Your task to perform on an android device: Search for a custom-made wallet on Etsy Image 0: 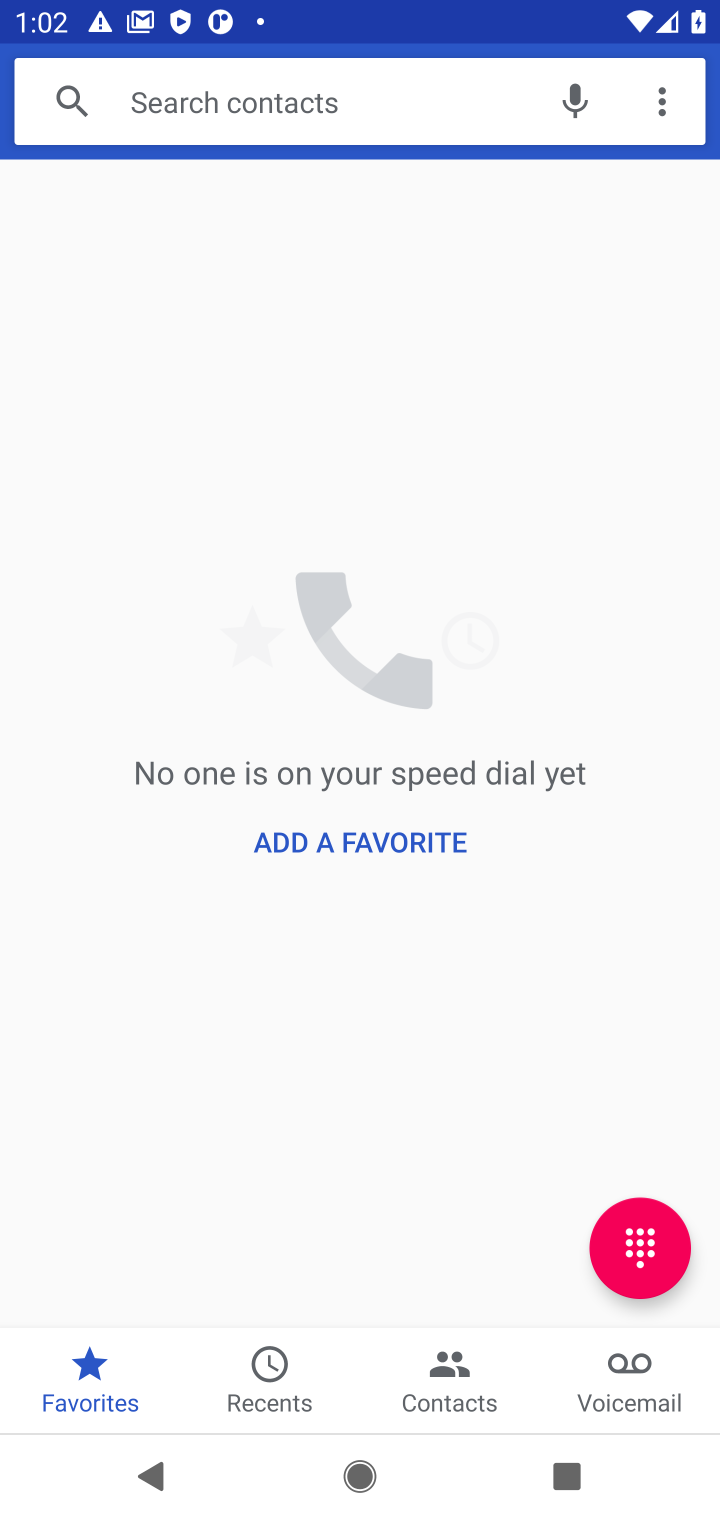
Step 0: press home button
Your task to perform on an android device: Search for a custom-made wallet on Etsy Image 1: 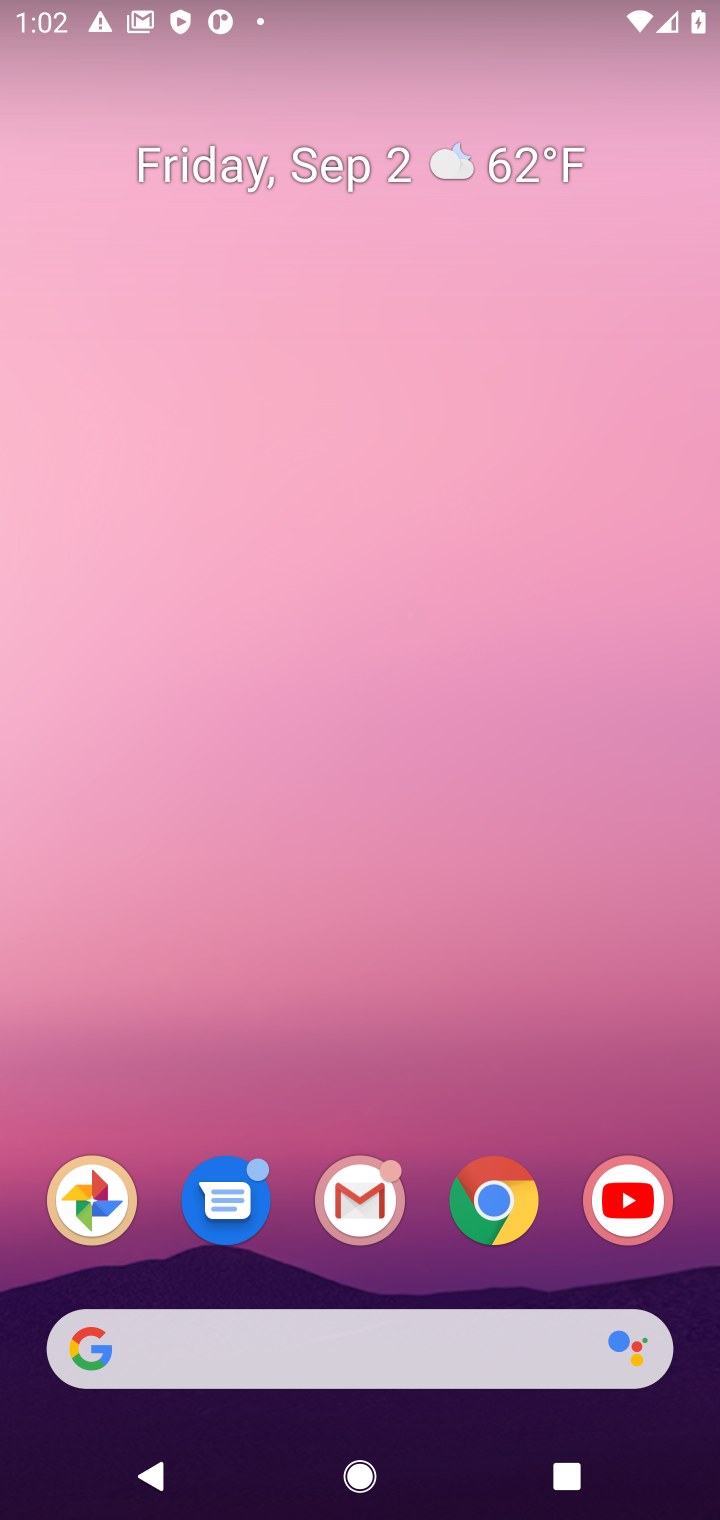
Step 1: click (494, 1210)
Your task to perform on an android device: Search for a custom-made wallet on Etsy Image 2: 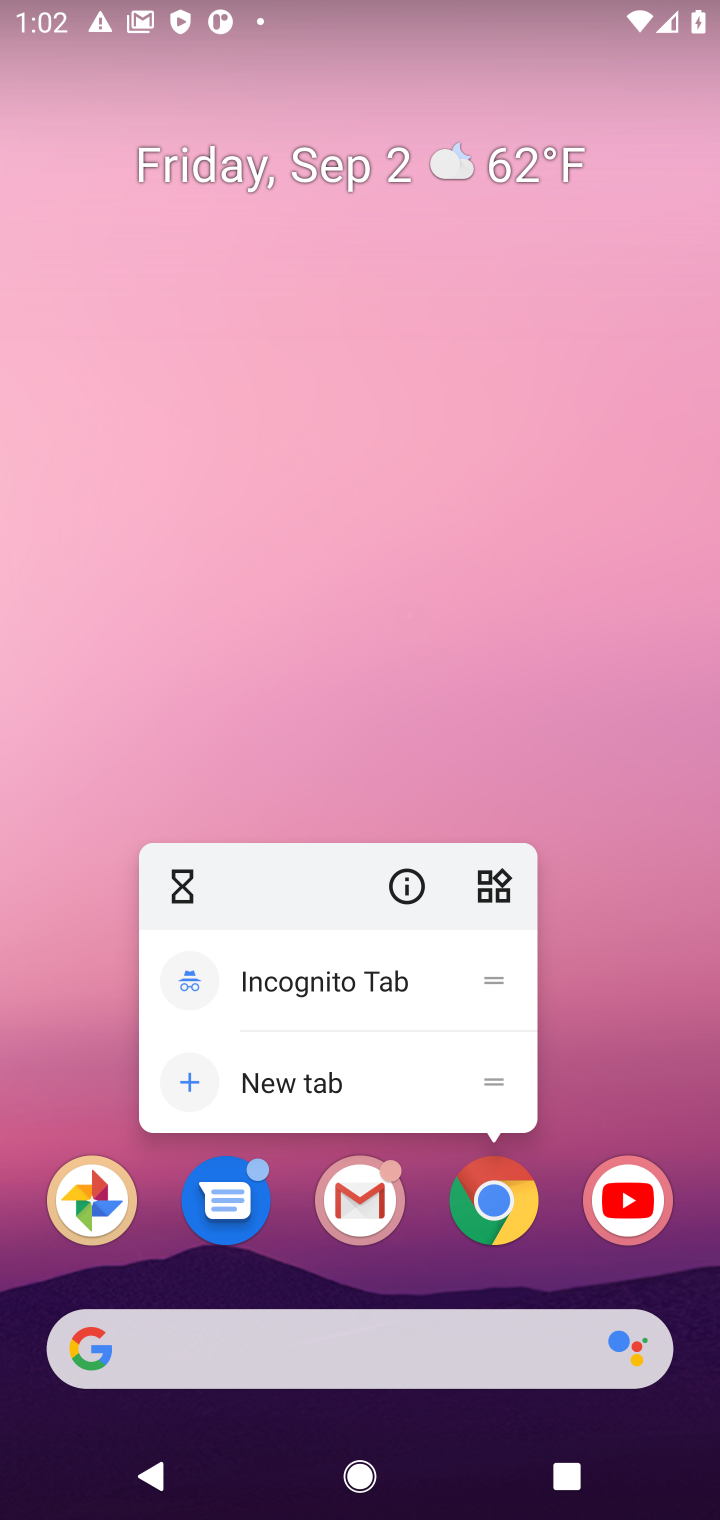
Step 2: click (492, 1189)
Your task to perform on an android device: Search for a custom-made wallet on Etsy Image 3: 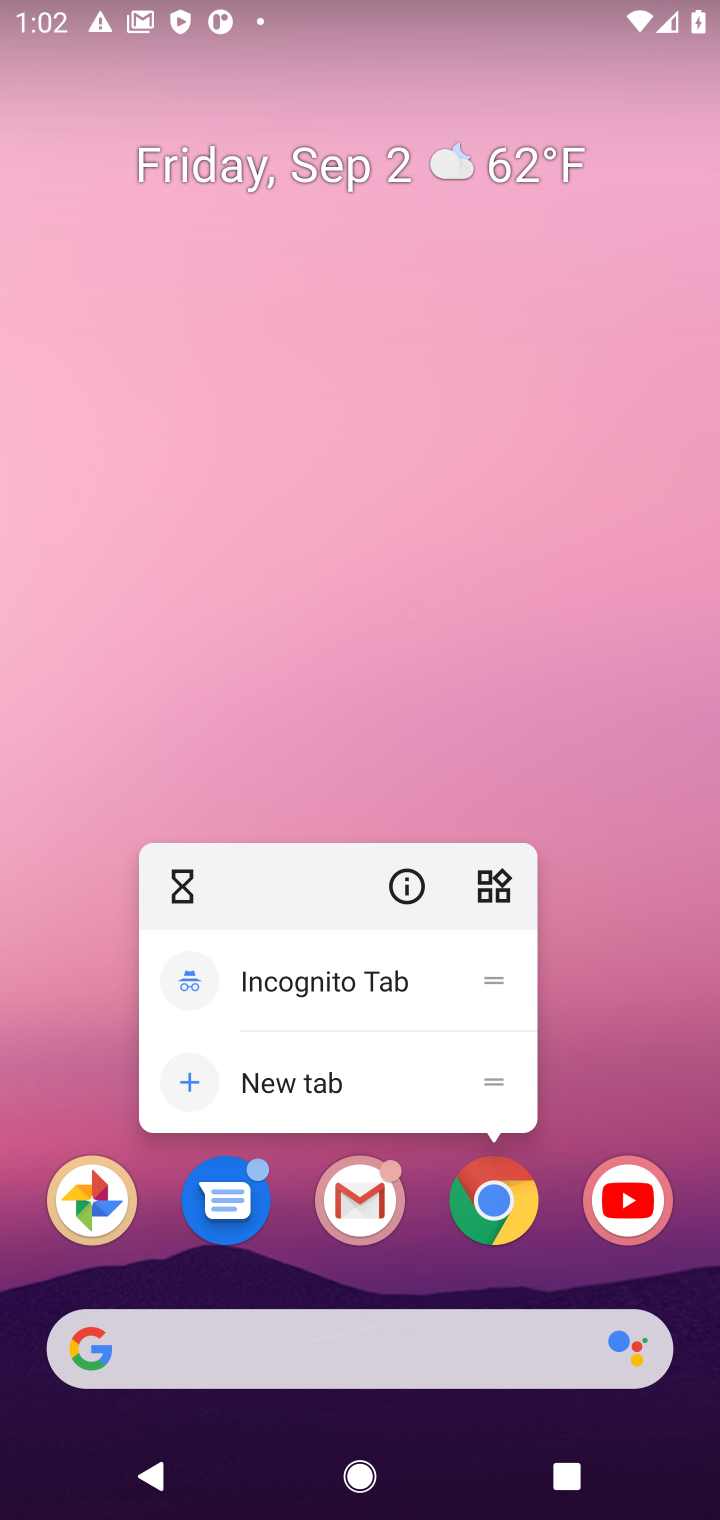
Step 3: click (492, 1191)
Your task to perform on an android device: Search for a custom-made wallet on Etsy Image 4: 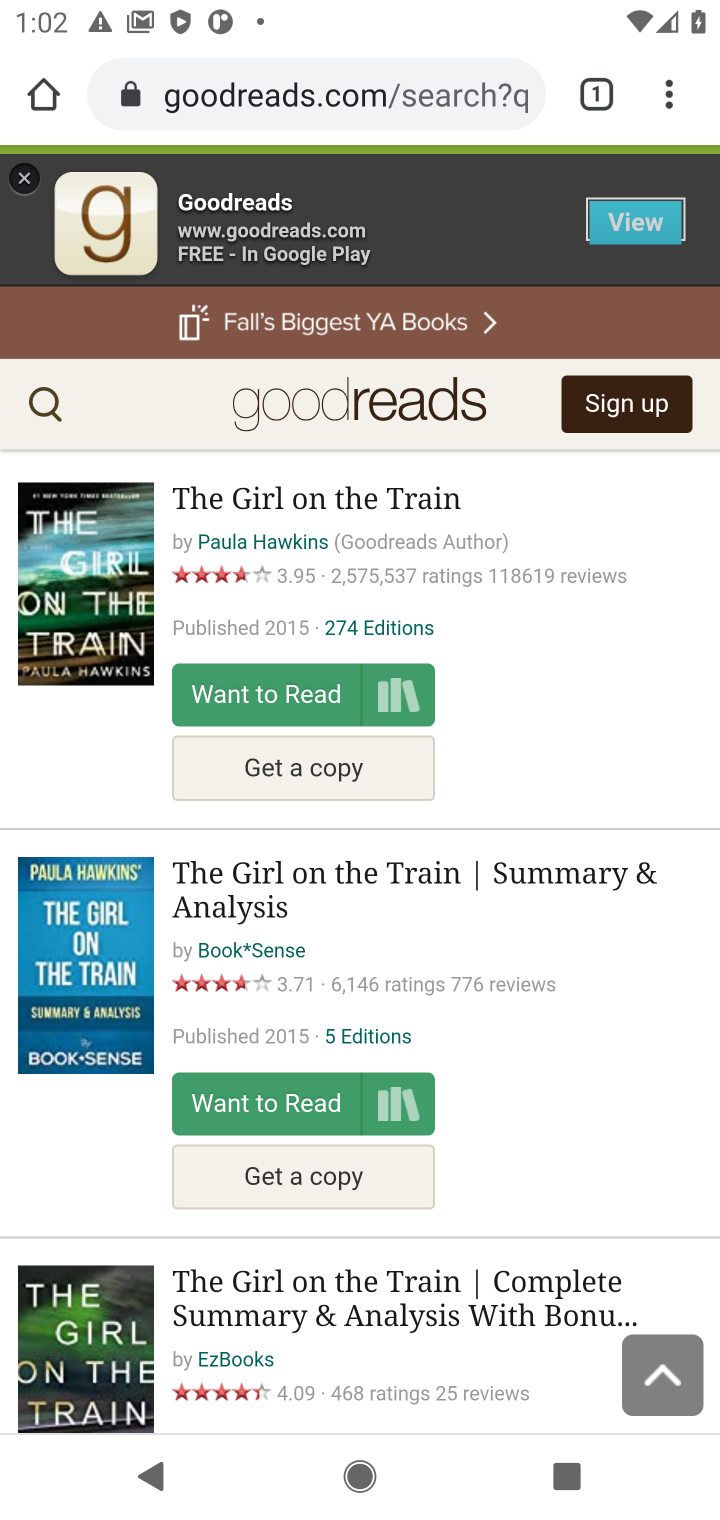
Step 4: click (404, 87)
Your task to perform on an android device: Search for a custom-made wallet on Etsy Image 5: 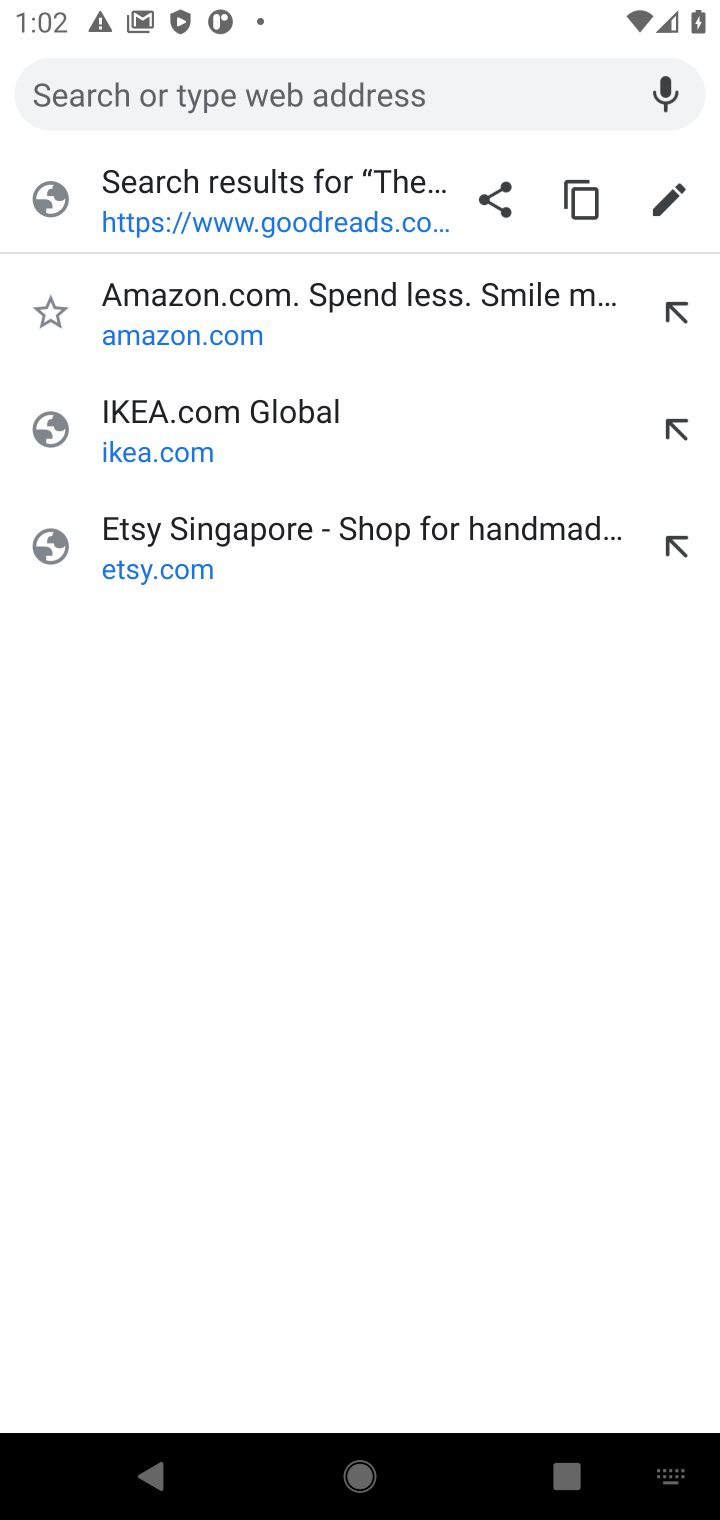
Step 5: type "Etsy"
Your task to perform on an android device: Search for a custom-made wallet on Etsy Image 6: 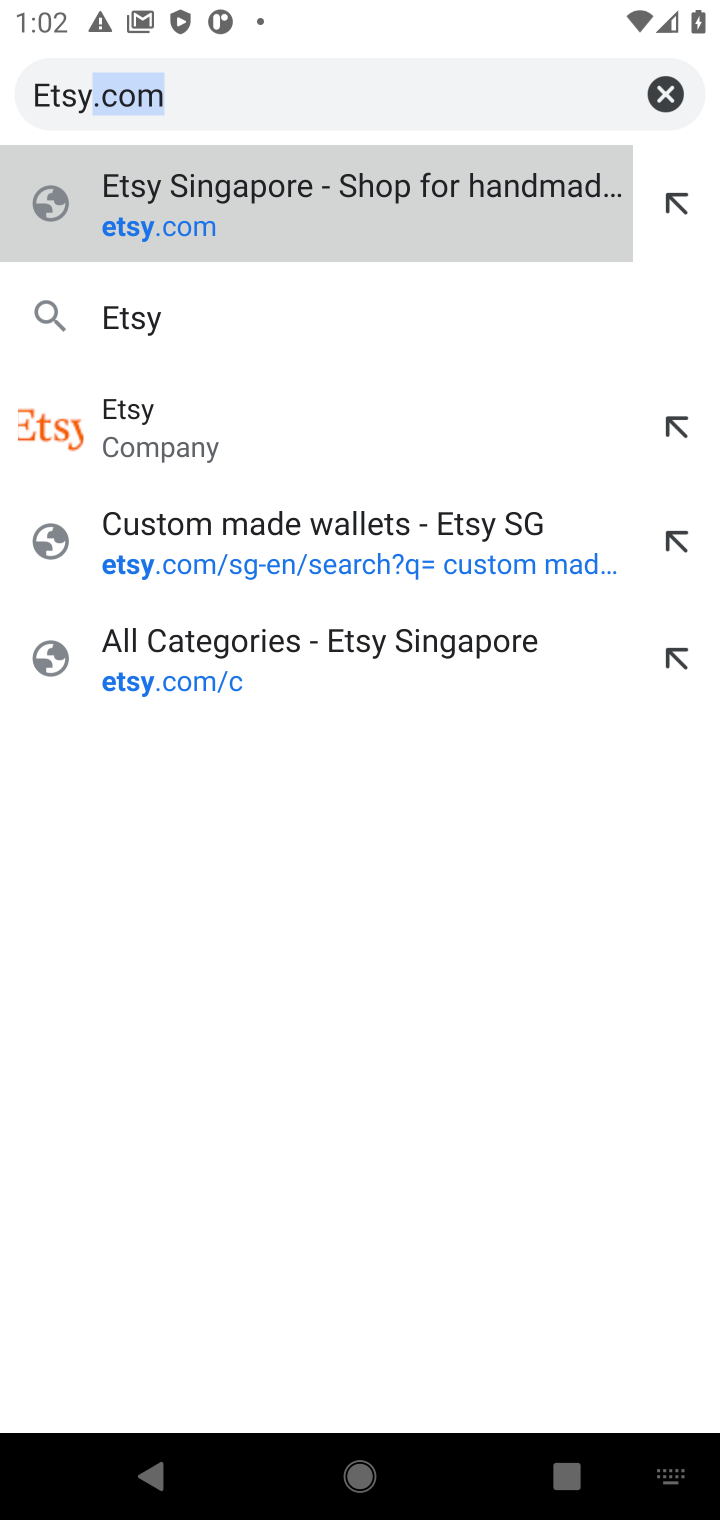
Step 6: press enter
Your task to perform on an android device: Search for a custom-made wallet on Etsy Image 7: 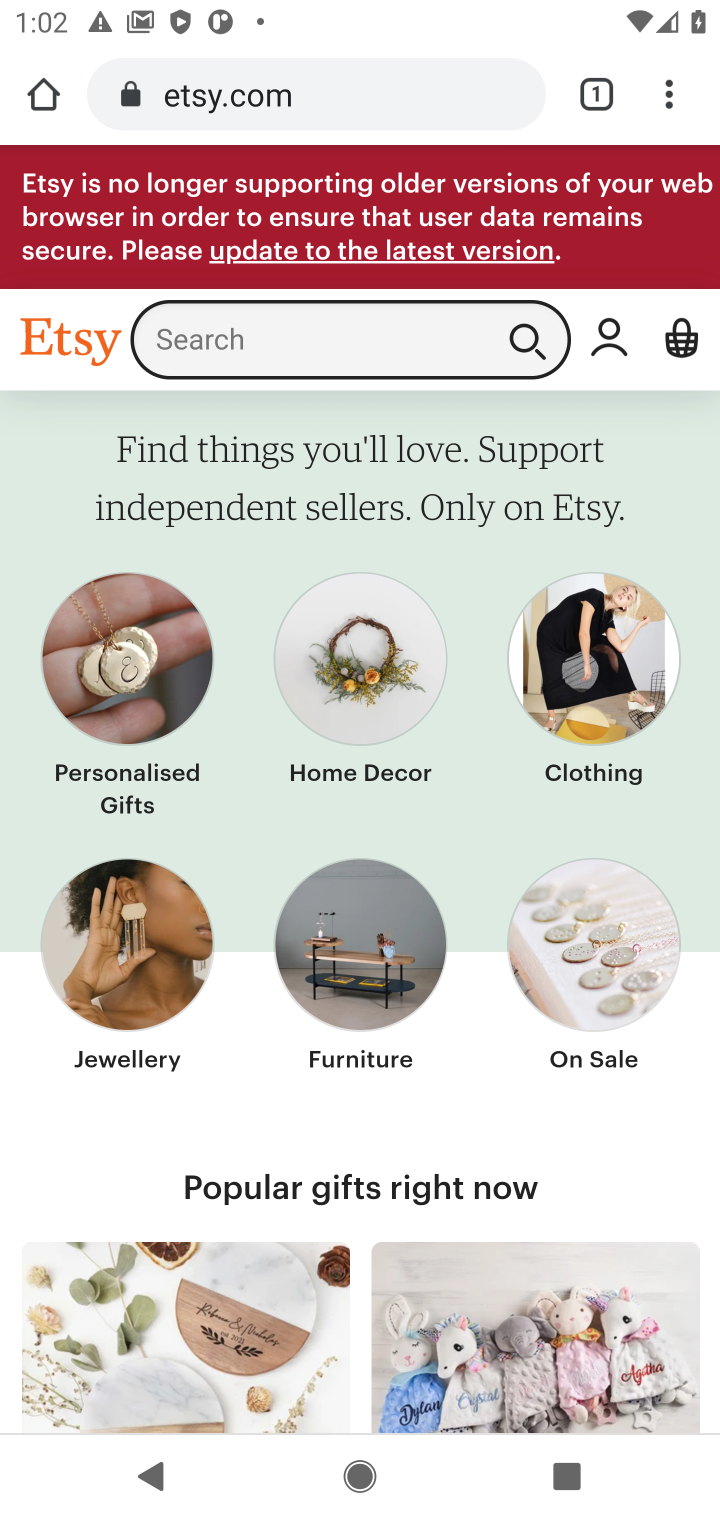
Step 7: click (390, 347)
Your task to perform on an android device: Search for a custom-made wallet on Etsy Image 8: 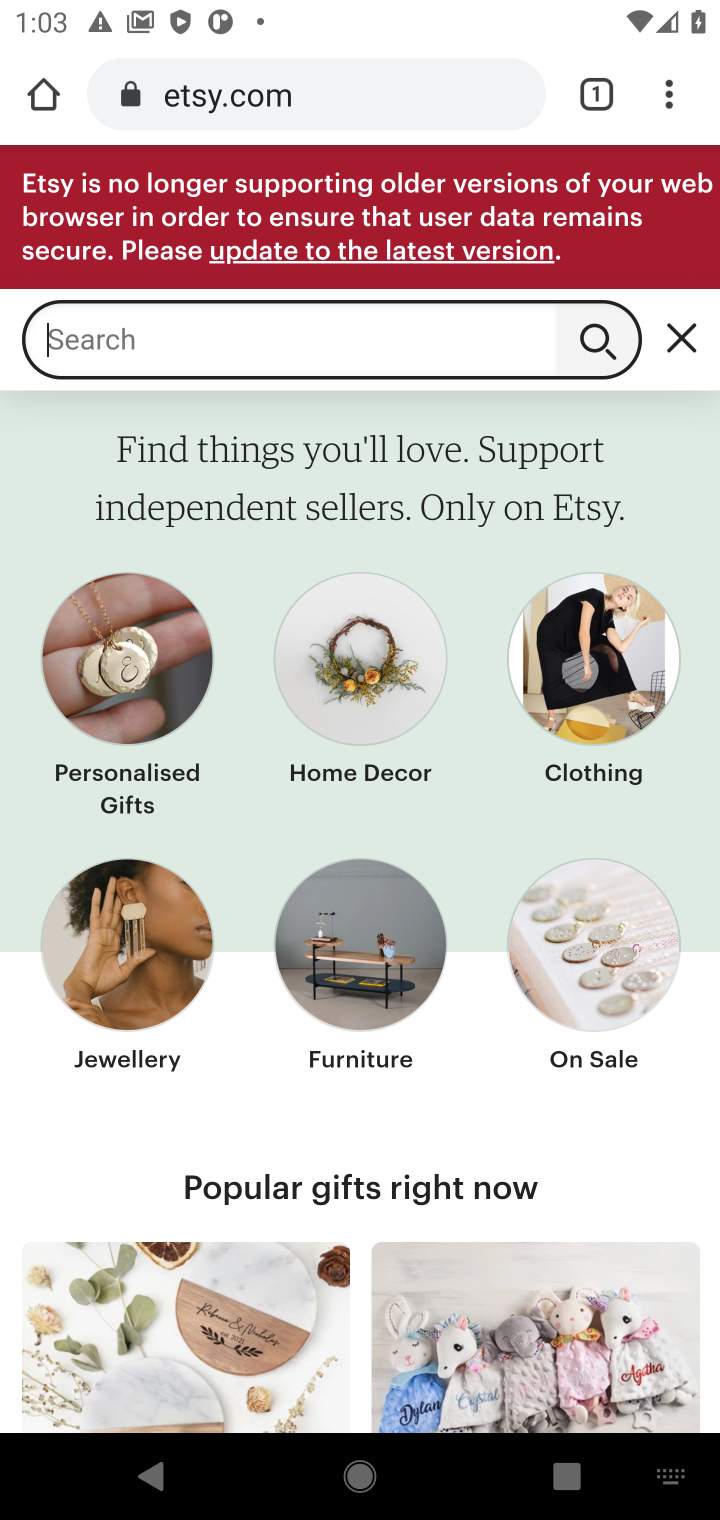
Step 8: type "custom made wallet"
Your task to perform on an android device: Search for a custom-made wallet on Etsy Image 9: 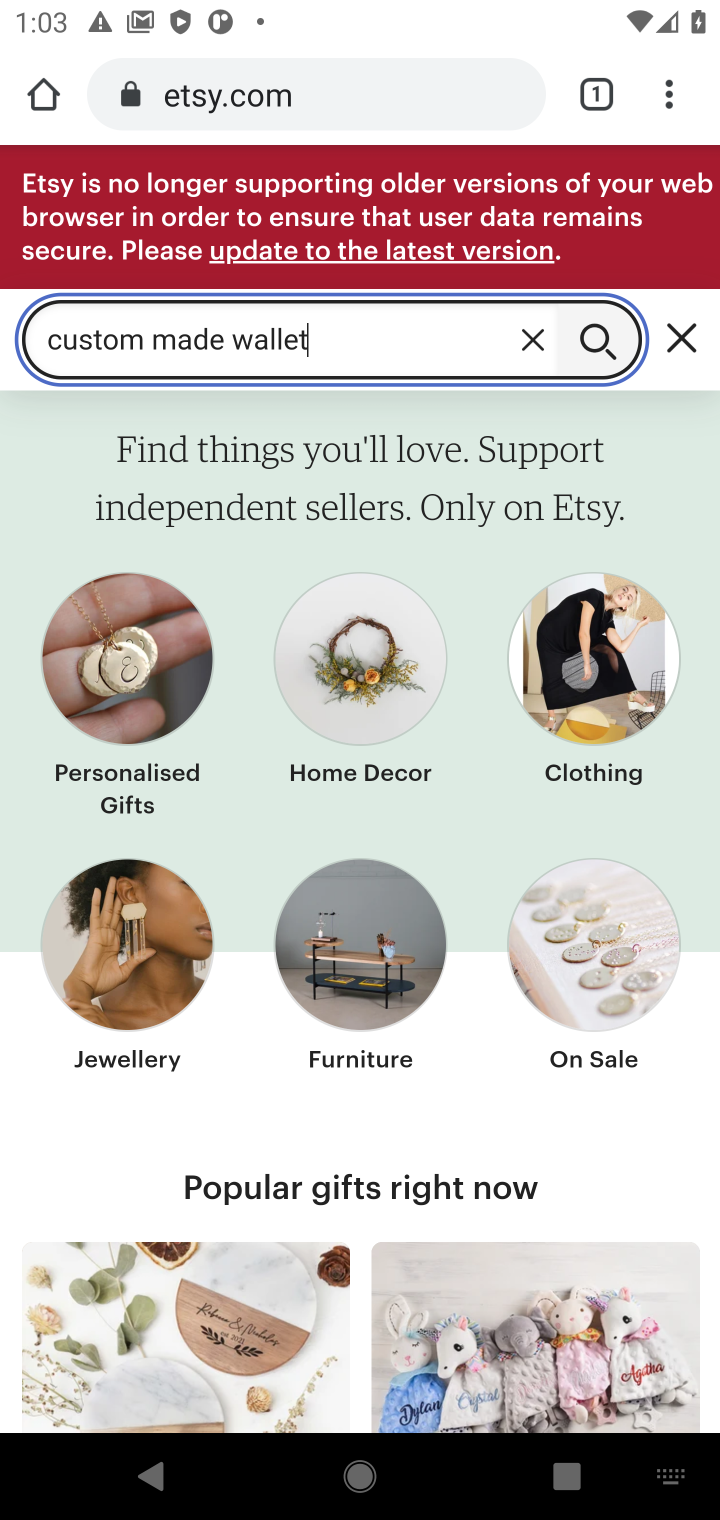
Step 9: press enter
Your task to perform on an android device: Search for a custom-made wallet on Etsy Image 10: 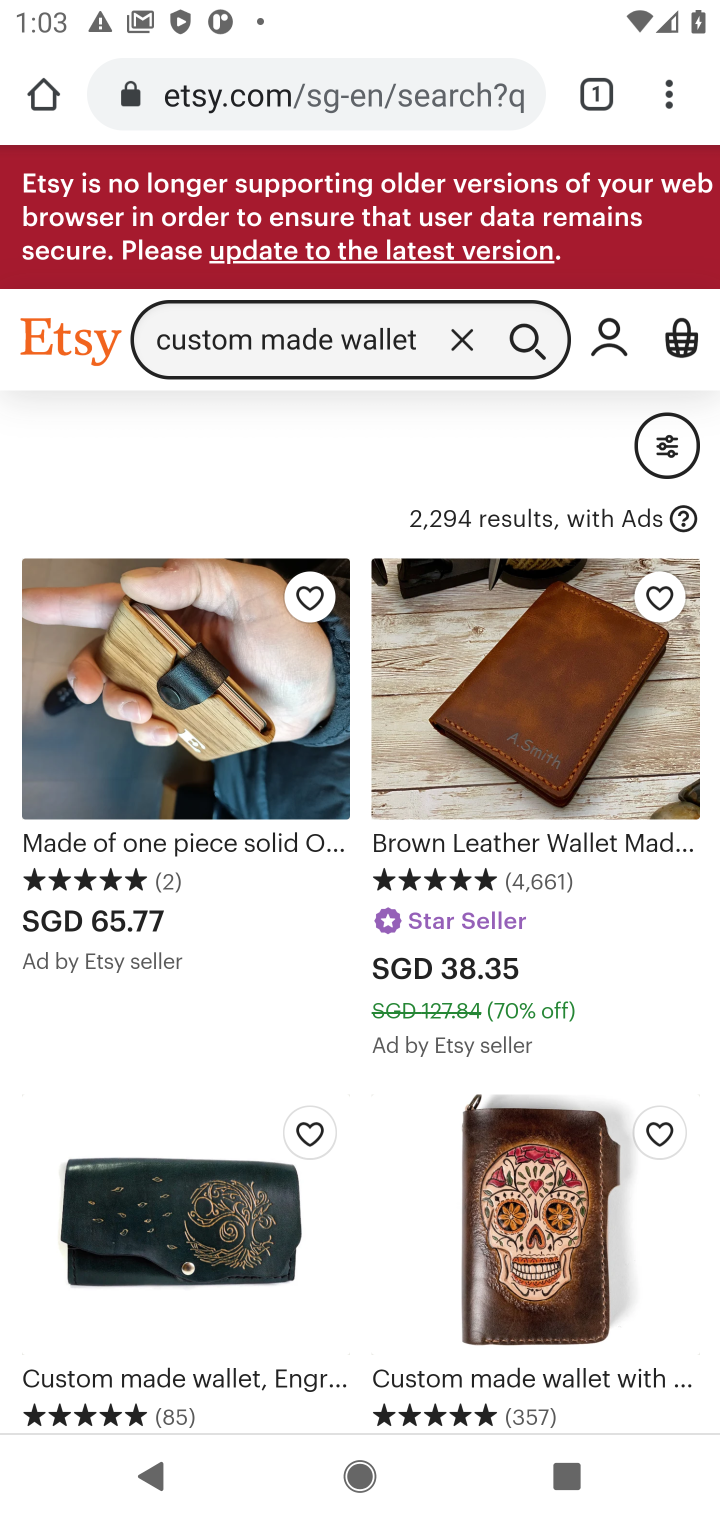
Step 10: drag from (364, 1261) to (490, 465)
Your task to perform on an android device: Search for a custom-made wallet on Etsy Image 11: 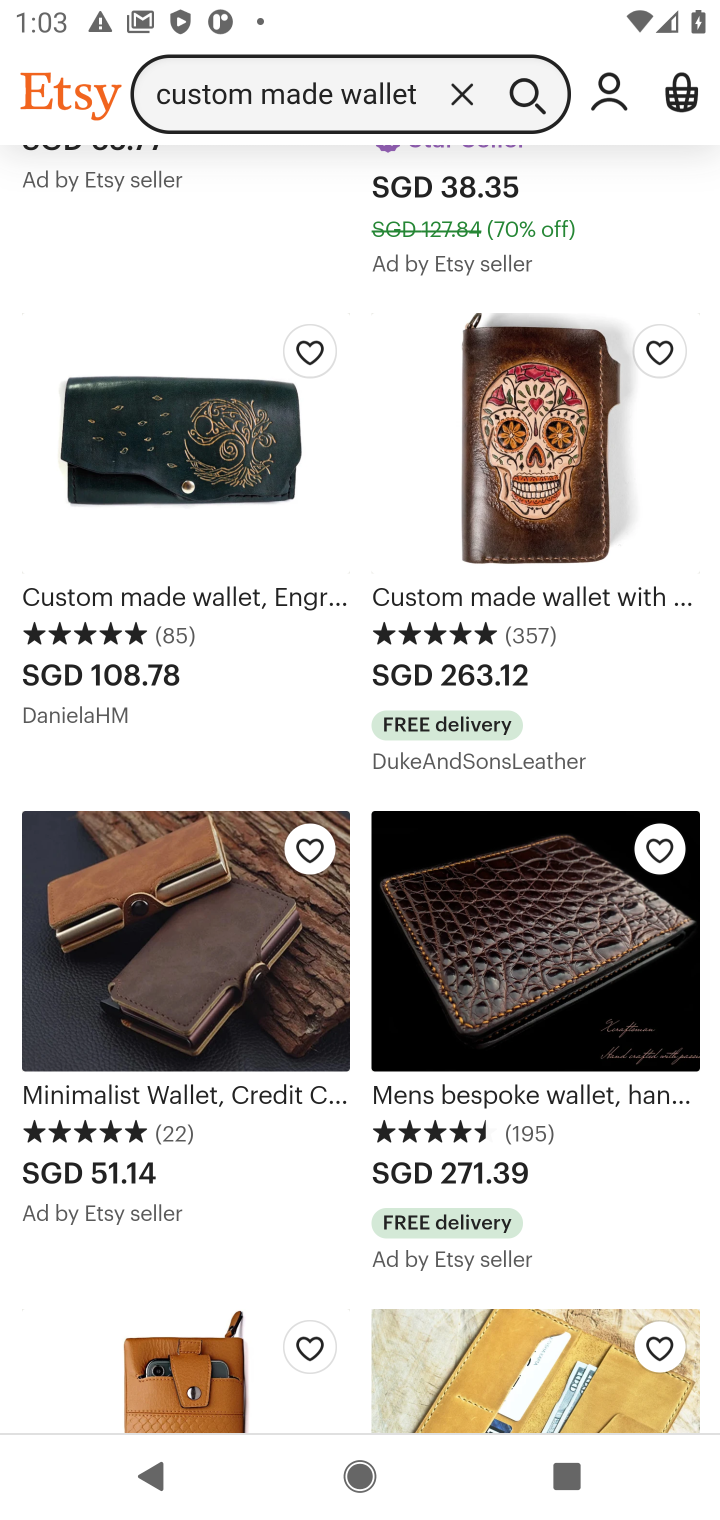
Step 11: drag from (346, 1205) to (622, 401)
Your task to perform on an android device: Search for a custom-made wallet on Etsy Image 12: 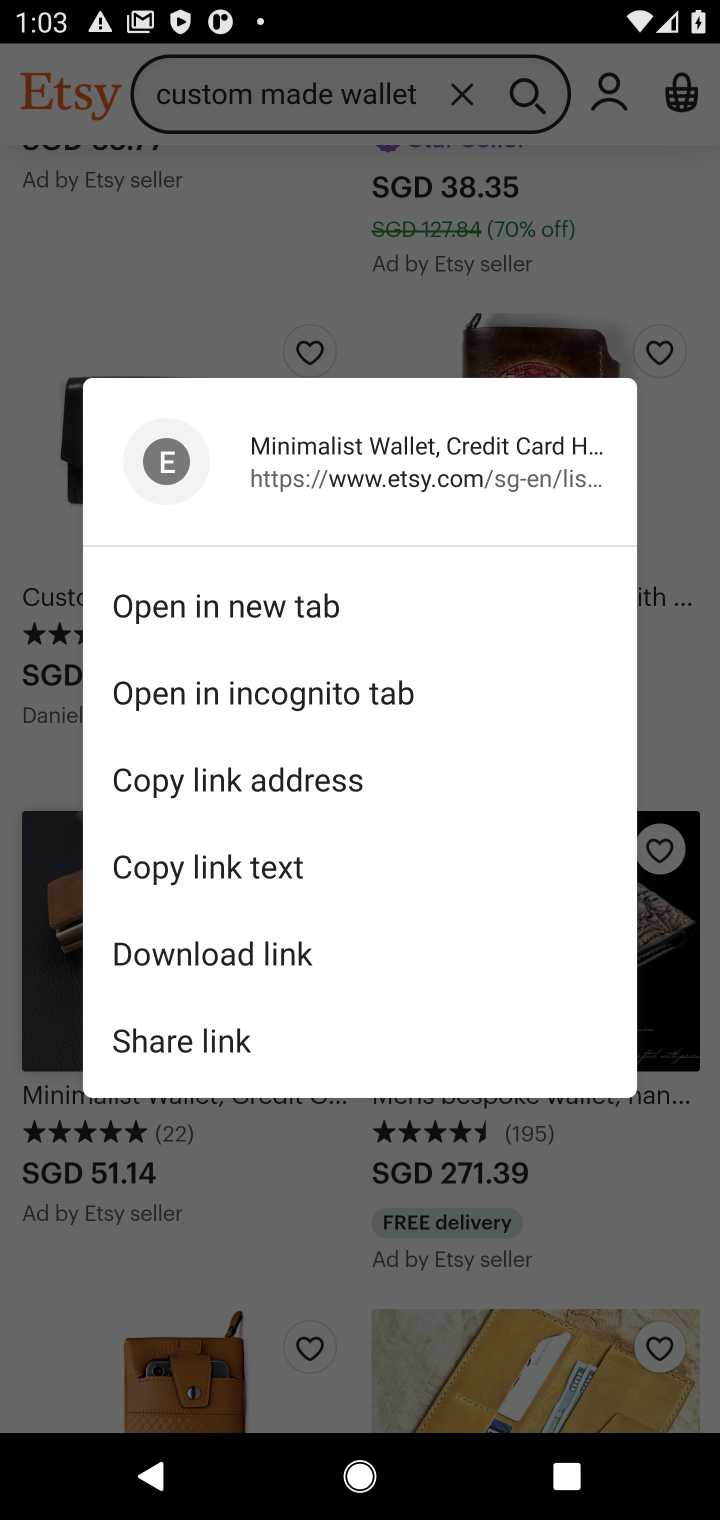
Step 12: click (665, 674)
Your task to perform on an android device: Search for a custom-made wallet on Etsy Image 13: 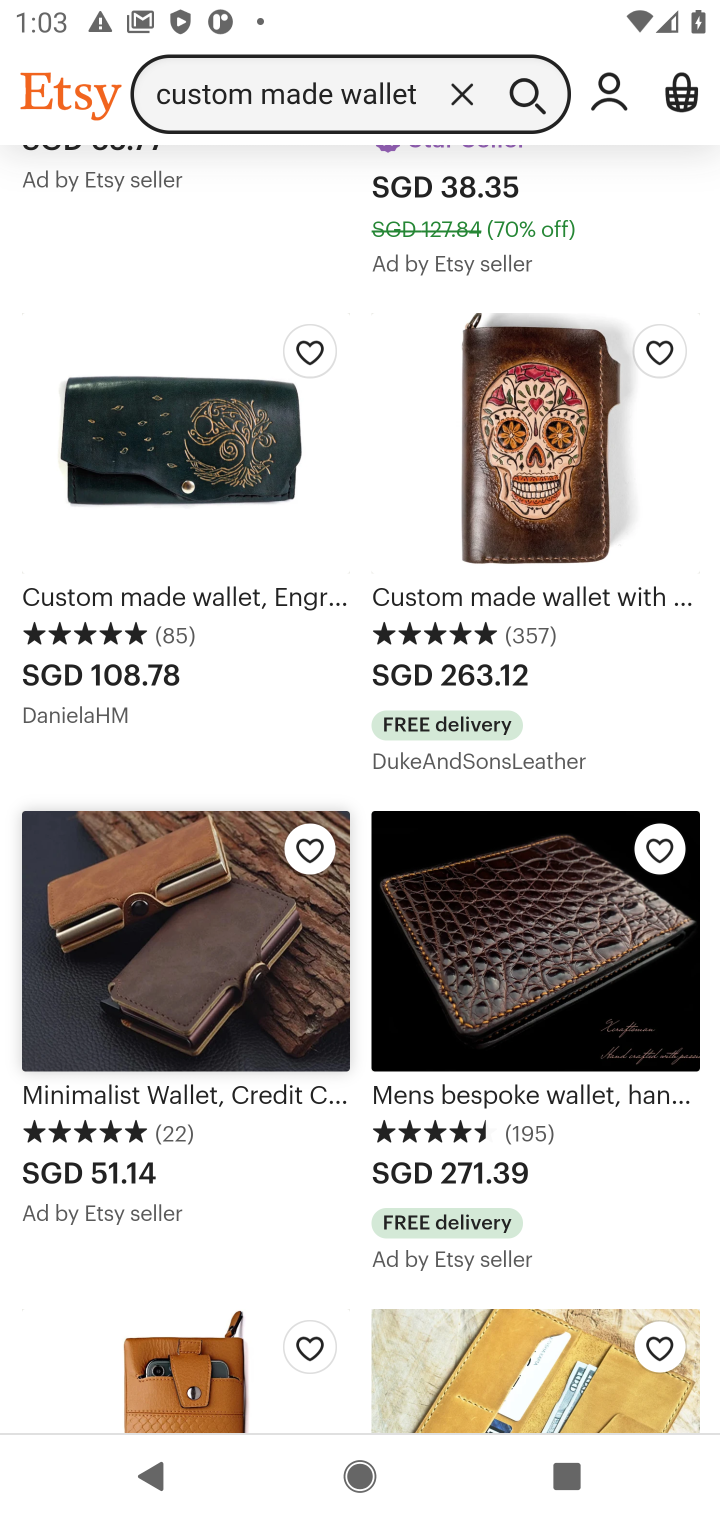
Step 13: click (631, 246)
Your task to perform on an android device: Search for a custom-made wallet on Etsy Image 14: 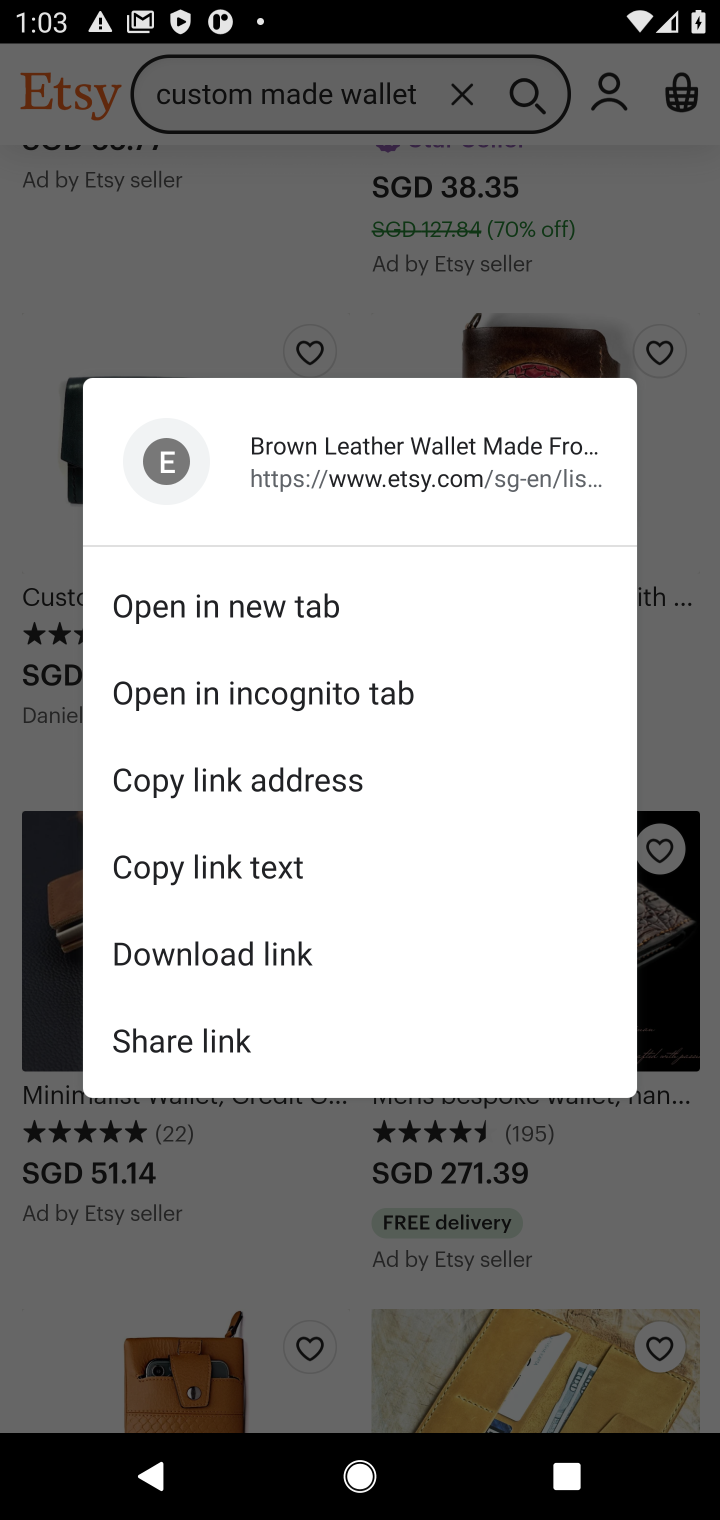
Step 14: click (669, 711)
Your task to perform on an android device: Search for a custom-made wallet on Etsy Image 15: 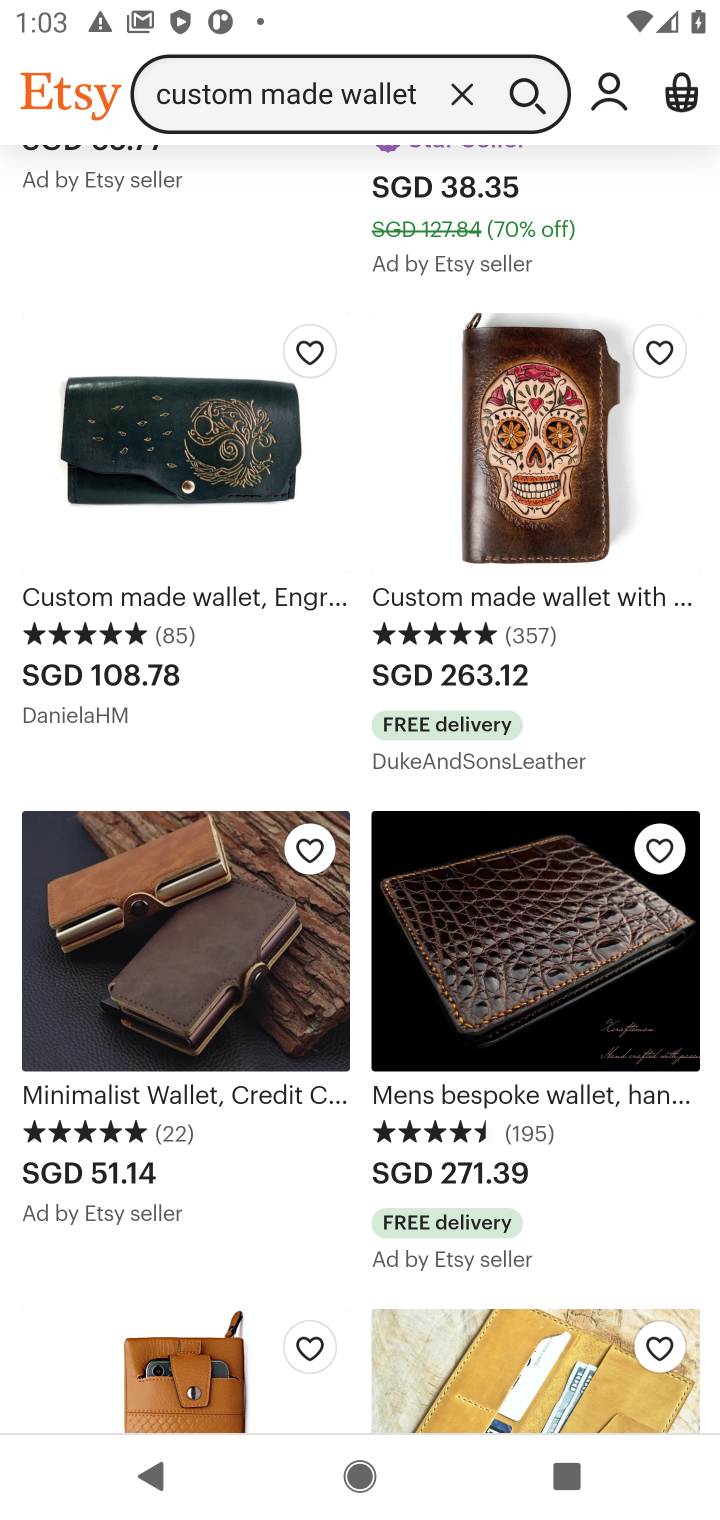
Step 15: drag from (324, 520) to (327, 1199)
Your task to perform on an android device: Search for a custom-made wallet on Etsy Image 16: 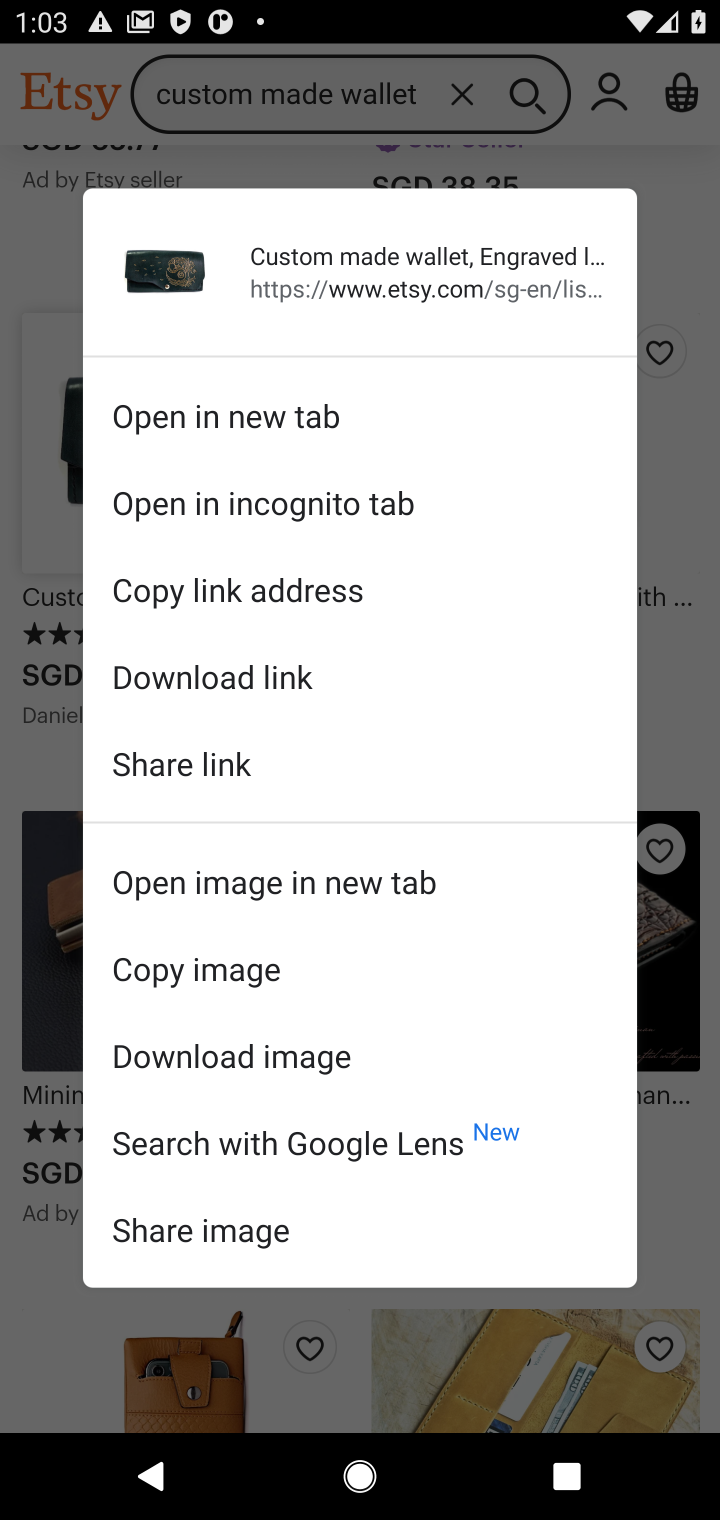
Step 16: click (702, 697)
Your task to perform on an android device: Search for a custom-made wallet on Etsy Image 17: 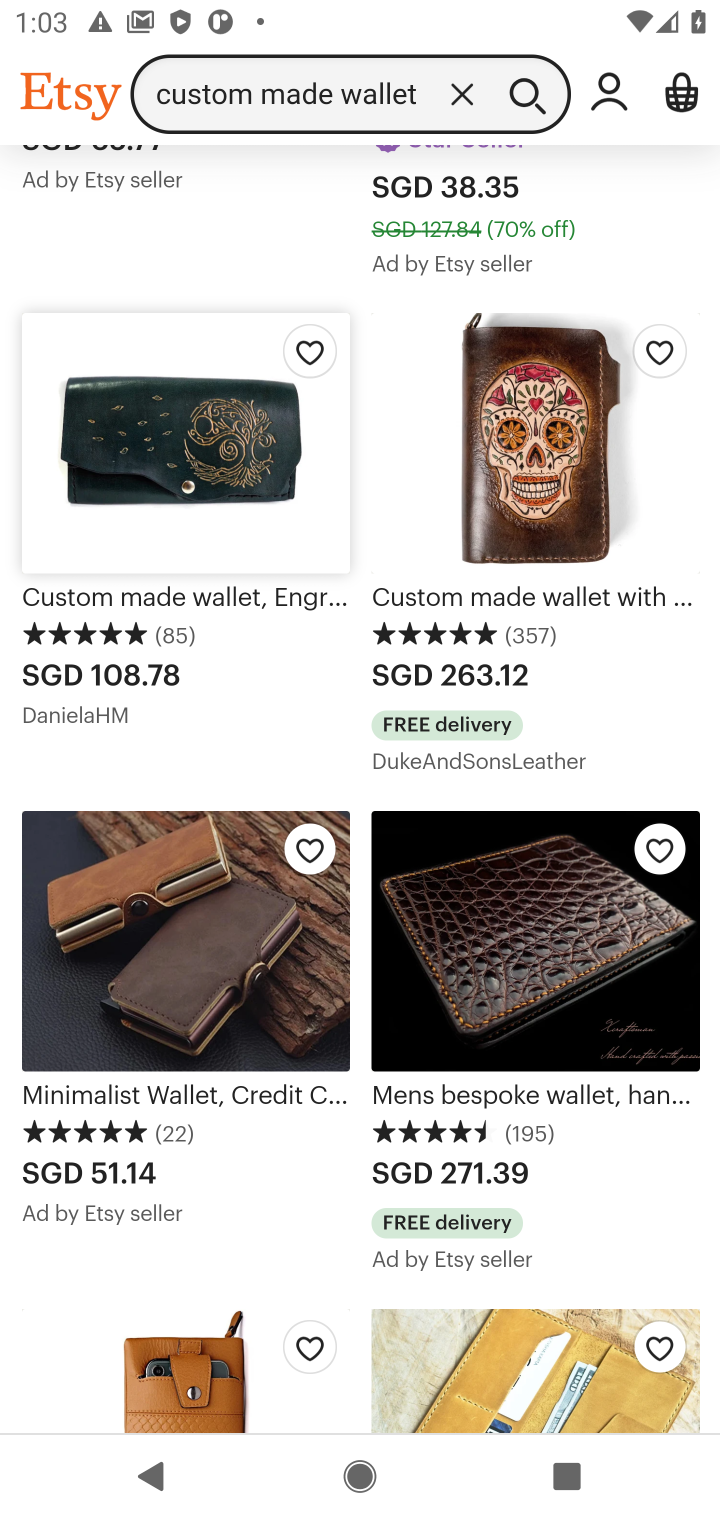
Step 17: task complete